Your task to perform on an android device: Add "lenovo thinkpad" to the cart on amazon.com Image 0: 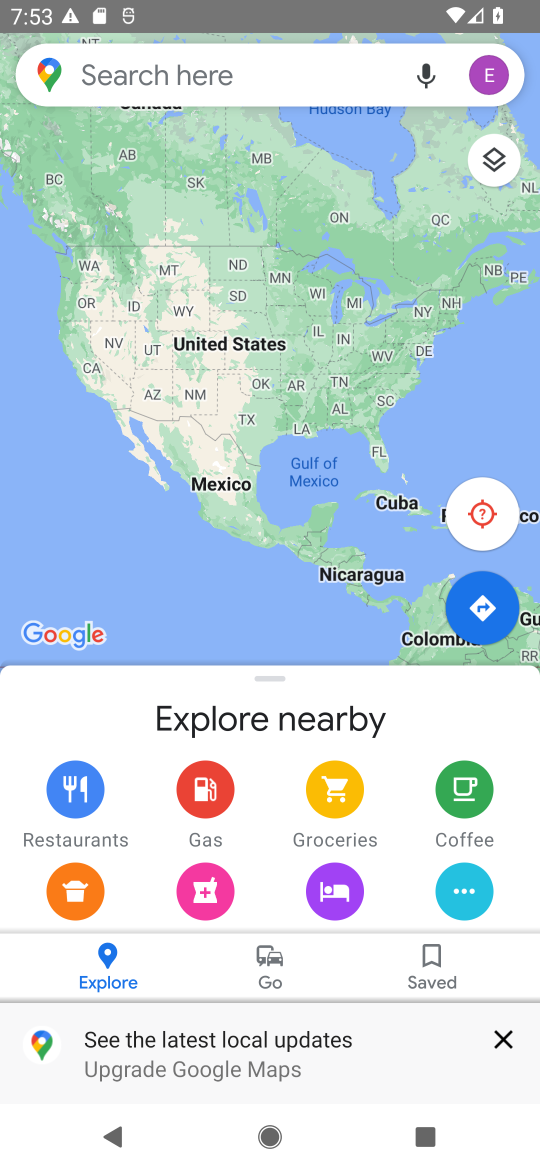
Step 0: press home button
Your task to perform on an android device: Add "lenovo thinkpad" to the cart on amazon.com Image 1: 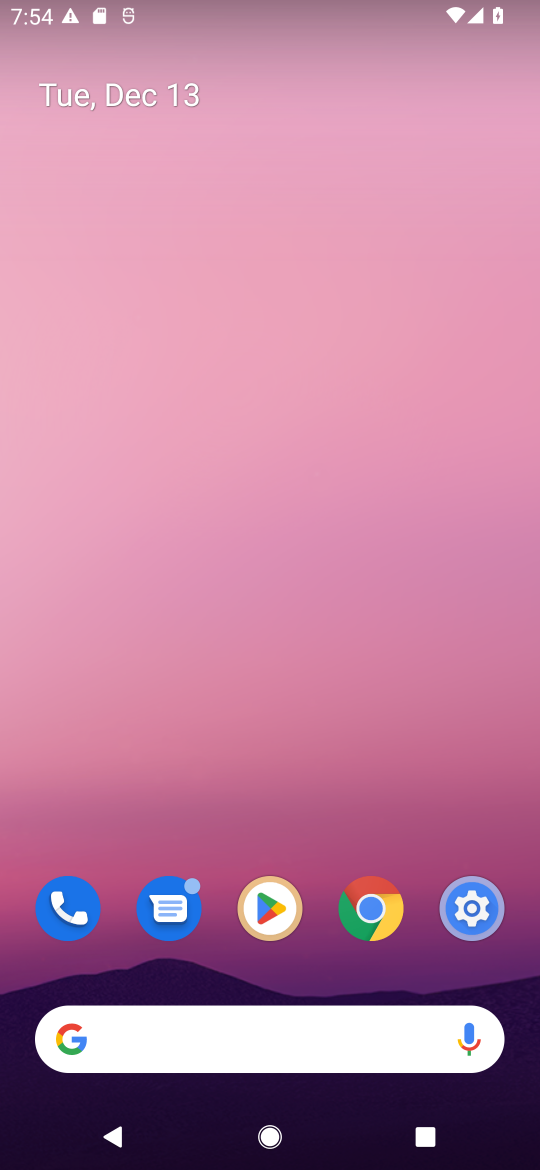
Step 1: click (106, 1039)
Your task to perform on an android device: Add "lenovo thinkpad" to the cart on amazon.com Image 2: 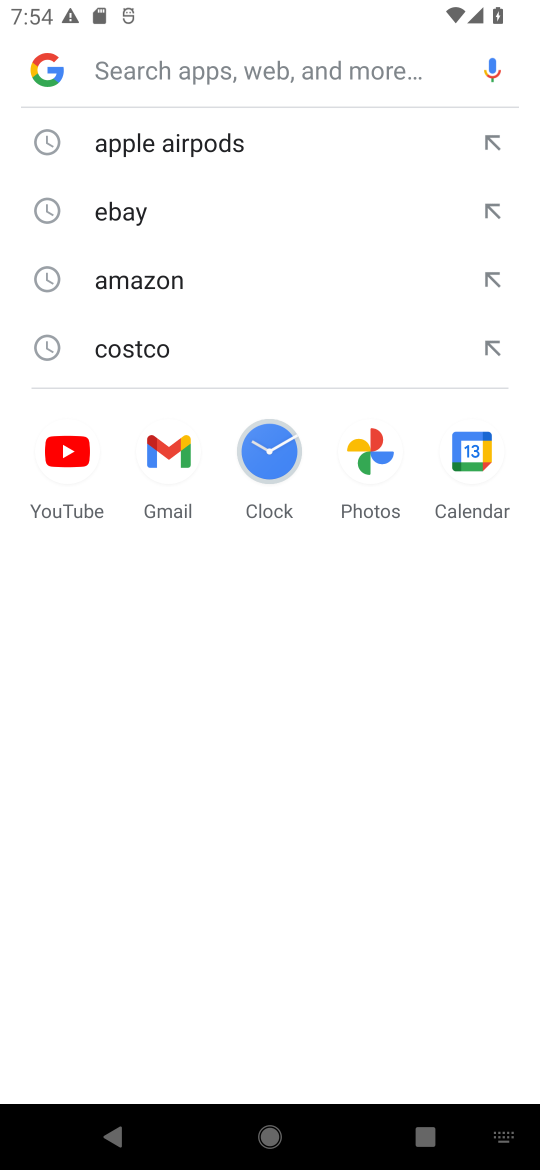
Step 2: type "amazon.com"
Your task to perform on an android device: Add "lenovo thinkpad" to the cart on amazon.com Image 3: 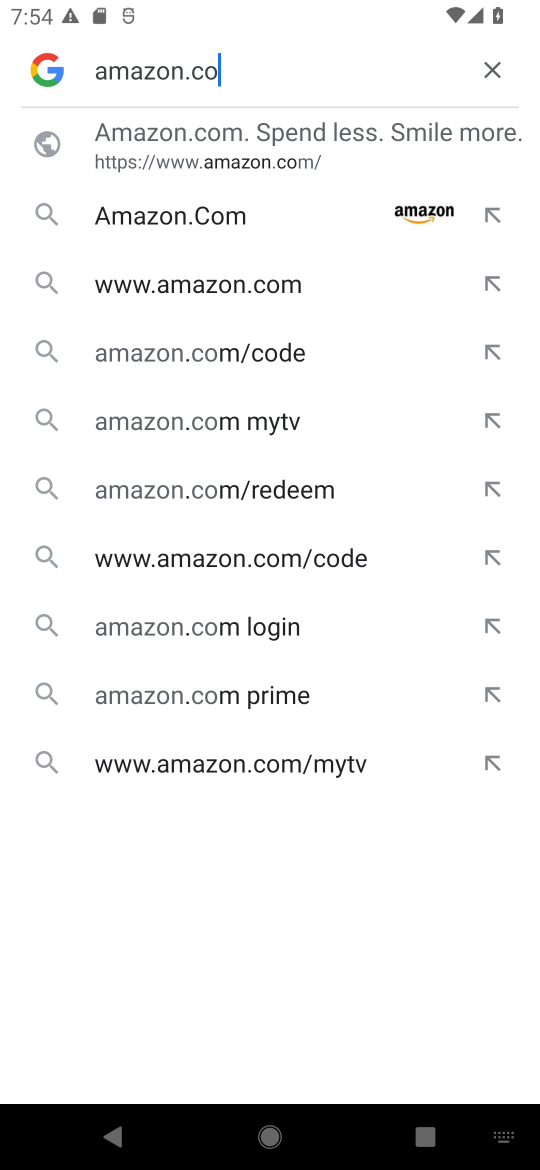
Step 3: press enter
Your task to perform on an android device: Add "lenovo thinkpad" to the cart on amazon.com Image 4: 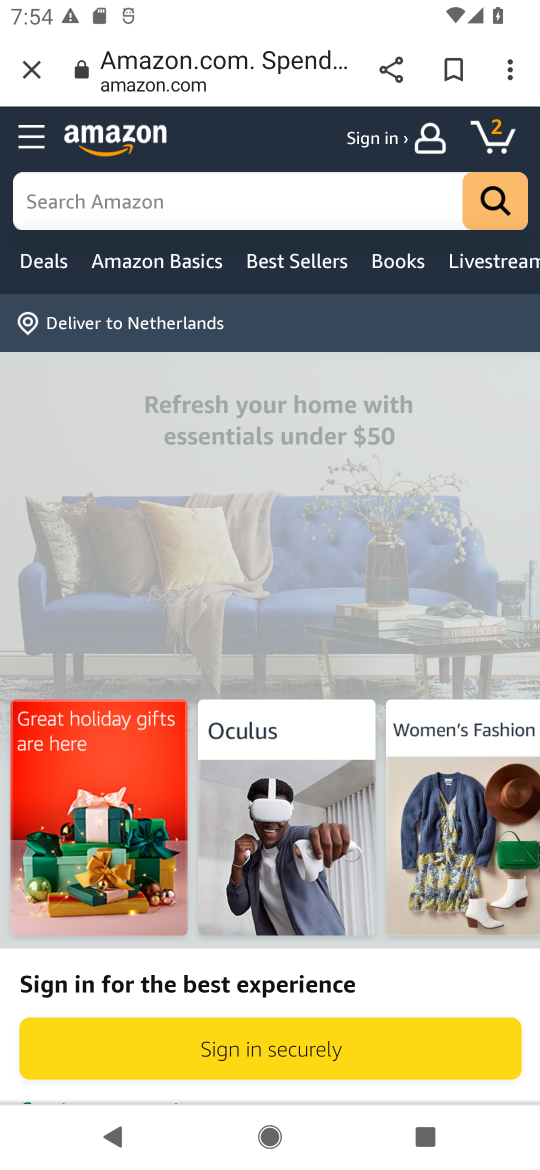
Step 4: click (89, 189)
Your task to perform on an android device: Add "lenovo thinkpad" to the cart on amazon.com Image 5: 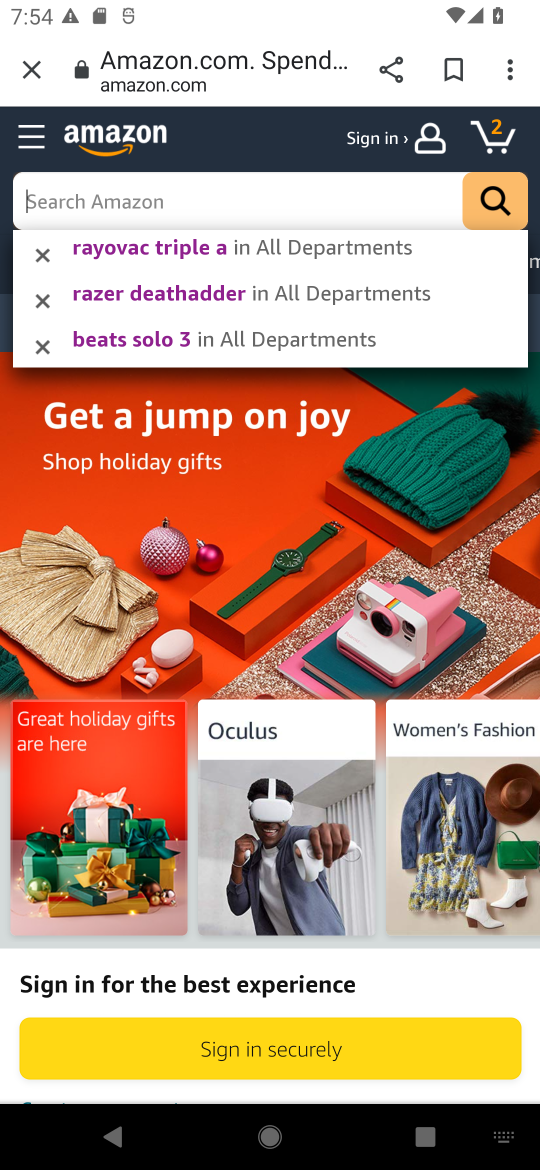
Step 5: type "lenovo thinkpad"
Your task to perform on an android device: Add "lenovo thinkpad" to the cart on amazon.com Image 6: 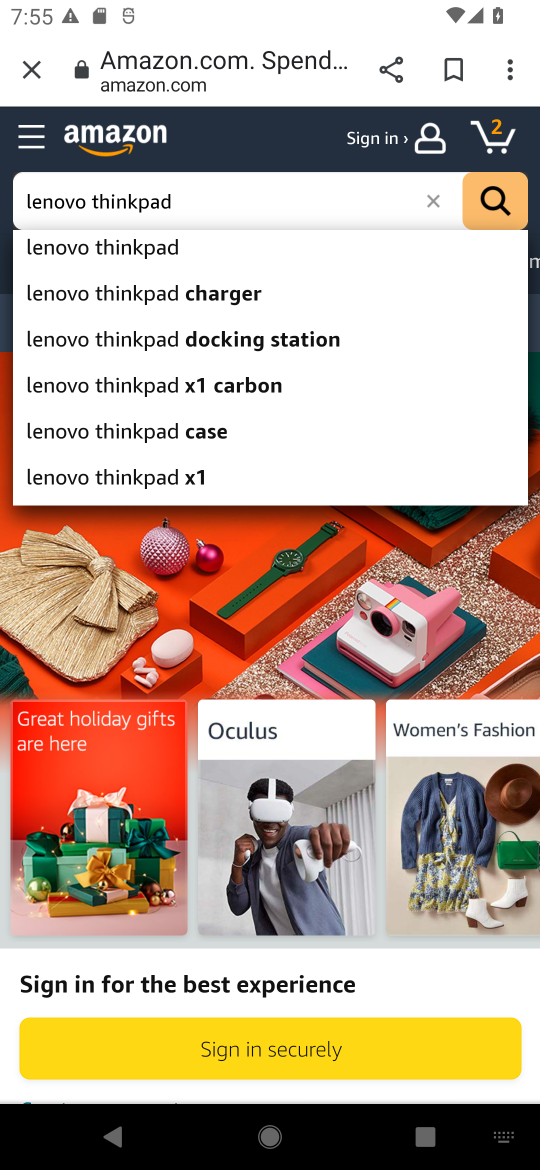
Step 6: click (491, 191)
Your task to perform on an android device: Add "lenovo thinkpad" to the cart on amazon.com Image 7: 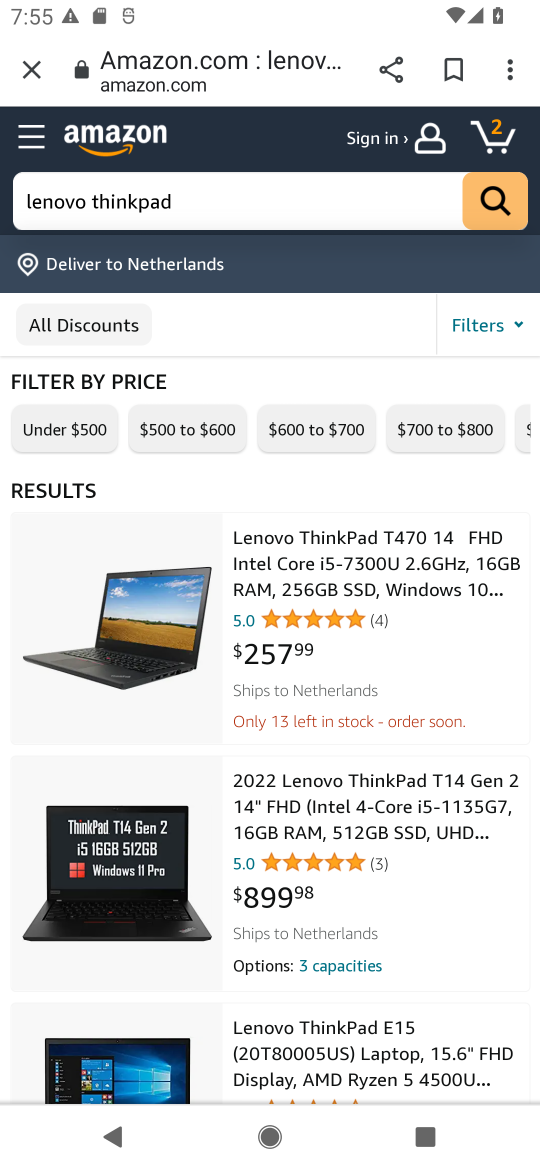
Step 7: click (295, 575)
Your task to perform on an android device: Add "lenovo thinkpad" to the cart on amazon.com Image 8: 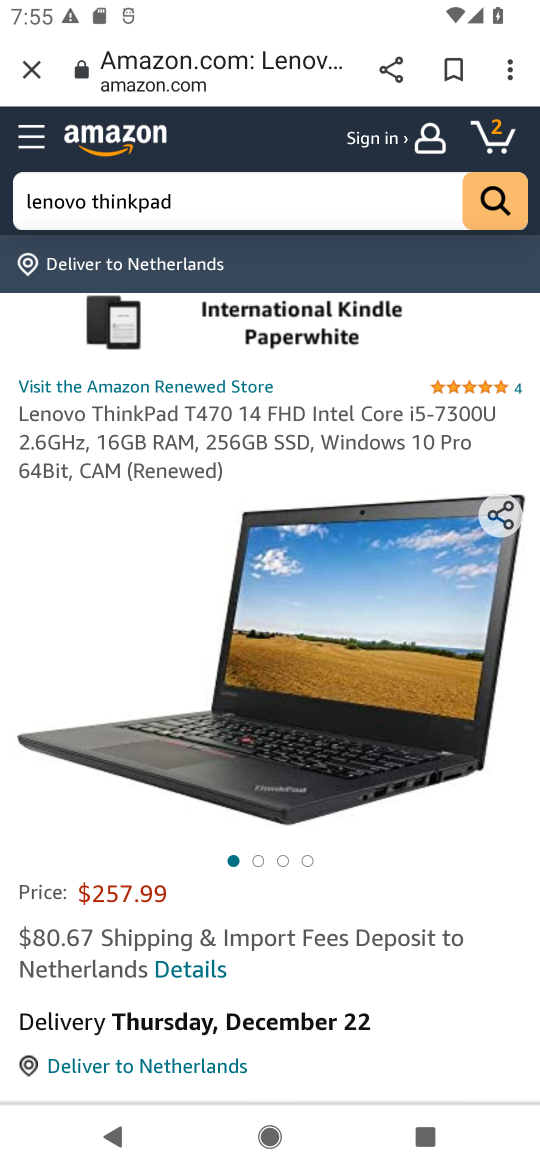
Step 8: drag from (275, 981) to (336, 399)
Your task to perform on an android device: Add "lenovo thinkpad" to the cart on amazon.com Image 9: 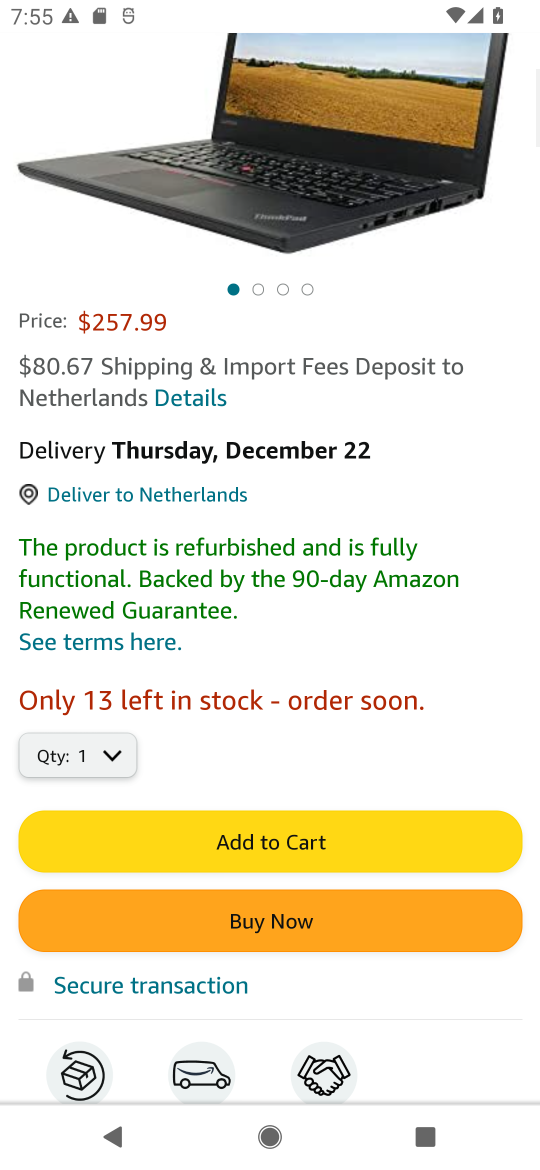
Step 9: click (235, 835)
Your task to perform on an android device: Add "lenovo thinkpad" to the cart on amazon.com Image 10: 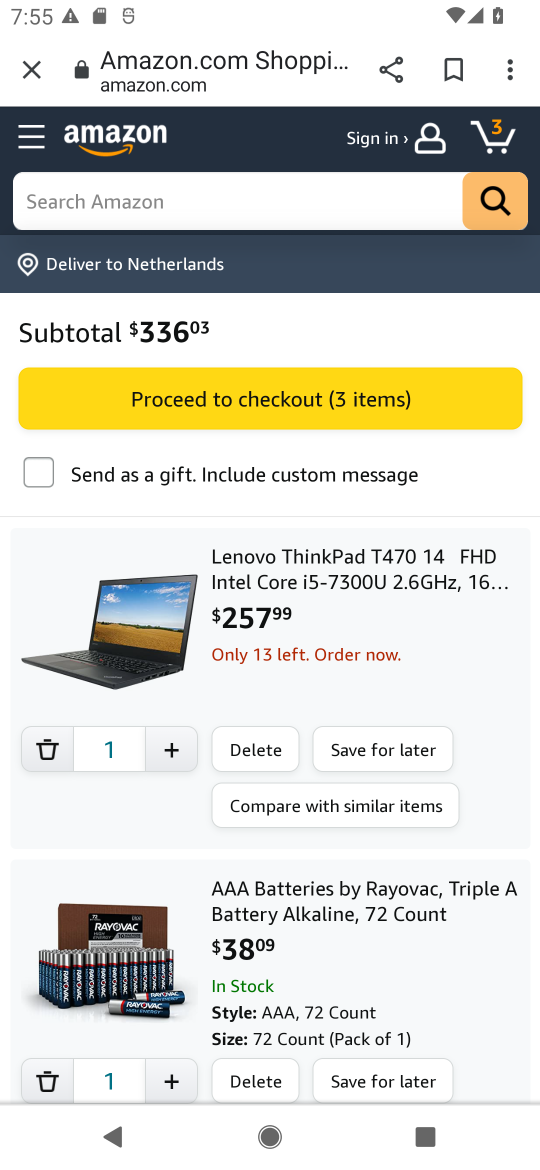
Step 10: task complete